Your task to perform on an android device: Go to Wikipedia Image 0: 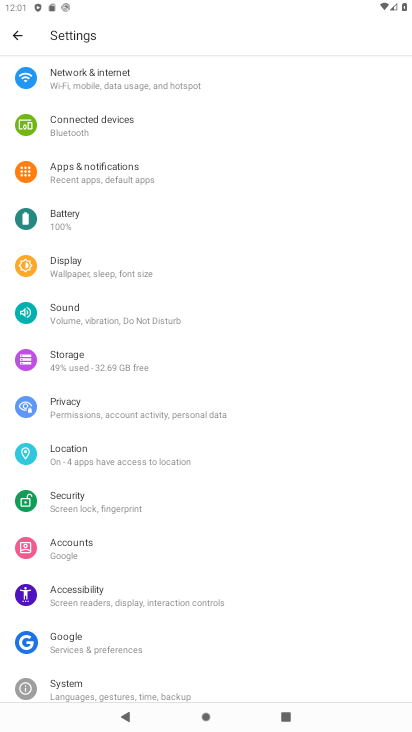
Step 0: press home button
Your task to perform on an android device: Go to Wikipedia Image 1: 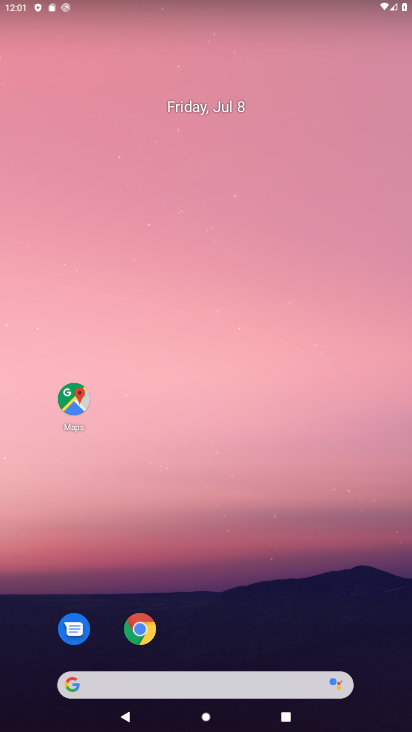
Step 1: click (142, 633)
Your task to perform on an android device: Go to Wikipedia Image 2: 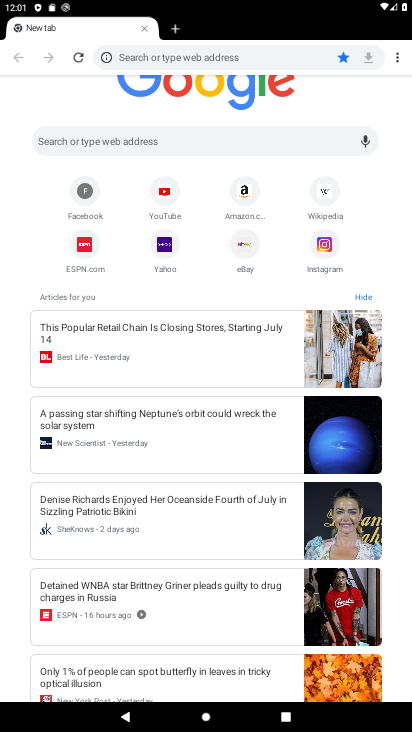
Step 2: click (320, 186)
Your task to perform on an android device: Go to Wikipedia Image 3: 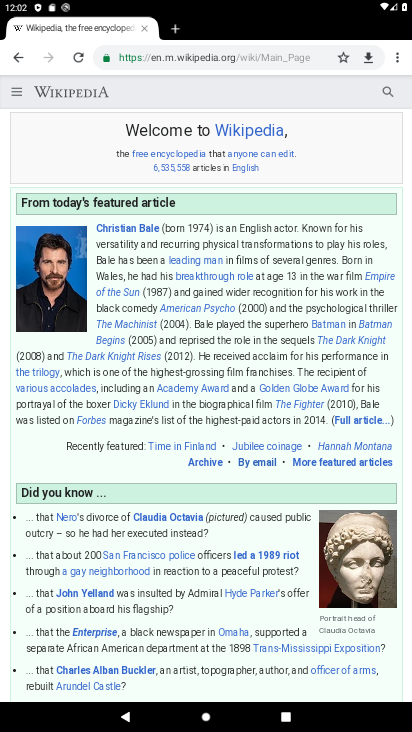
Step 3: task complete